Your task to perform on an android device: uninstall "WhatsApp Messenger" Image 0: 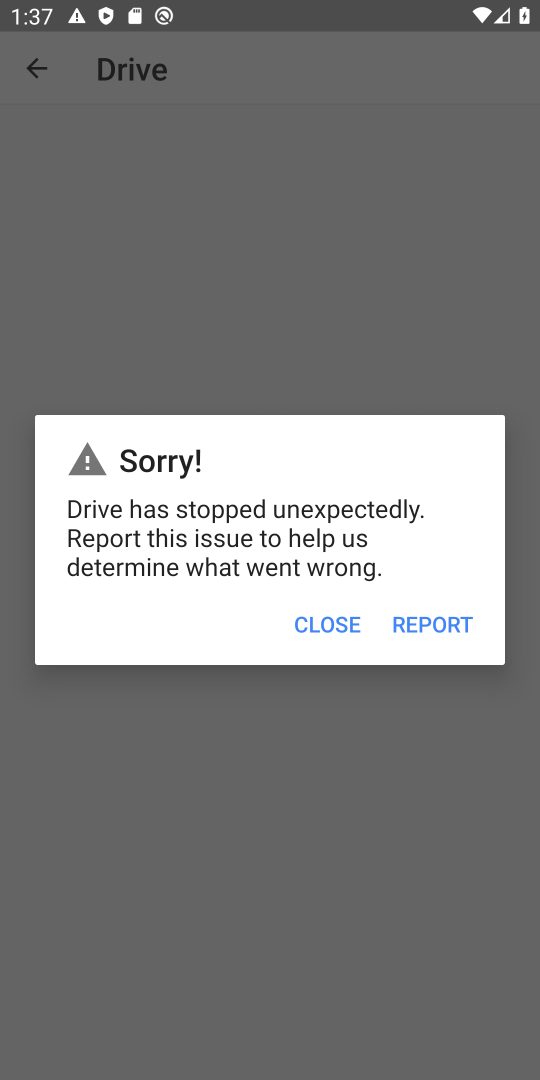
Step 0: task impossible